Your task to perform on an android device: Open Maps and search for coffee Image 0: 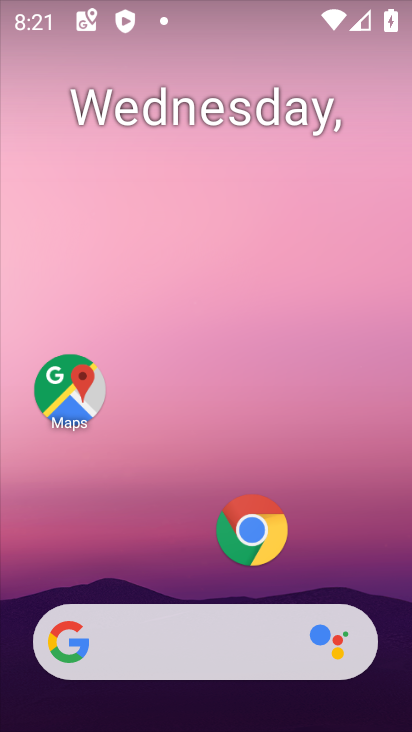
Step 0: click (58, 393)
Your task to perform on an android device: Open Maps and search for coffee Image 1: 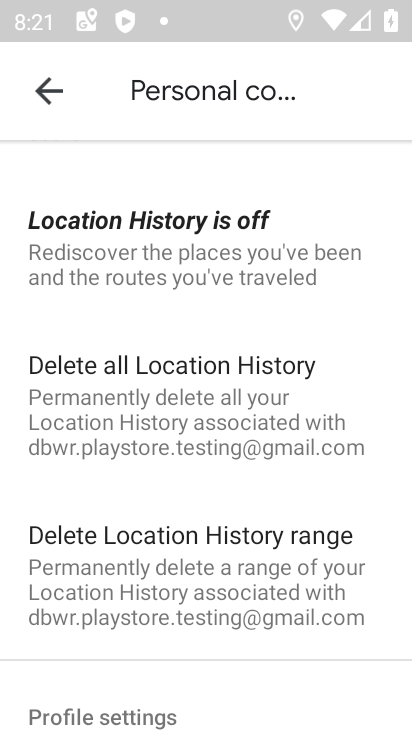
Step 1: click (54, 94)
Your task to perform on an android device: Open Maps and search for coffee Image 2: 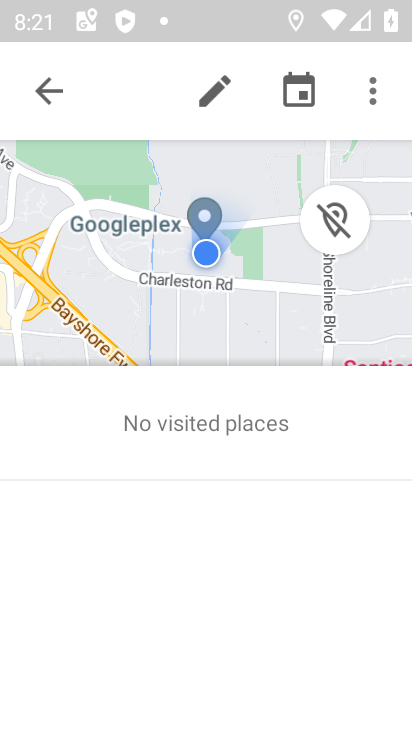
Step 2: click (64, 82)
Your task to perform on an android device: Open Maps and search for coffee Image 3: 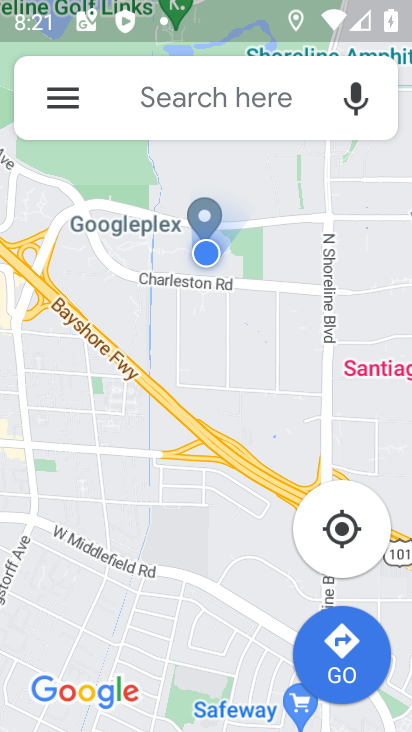
Step 3: click (184, 105)
Your task to perform on an android device: Open Maps and search for coffee Image 4: 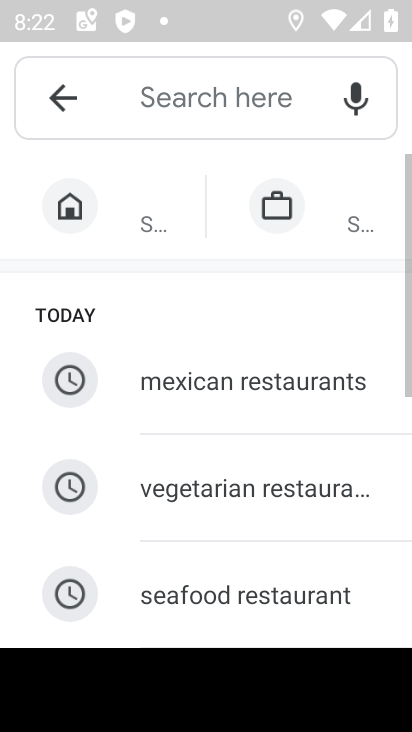
Step 4: drag from (182, 604) to (228, 282)
Your task to perform on an android device: Open Maps and search for coffee Image 5: 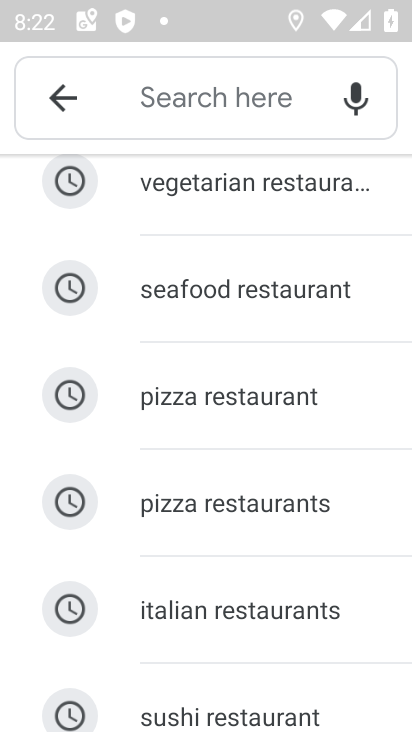
Step 5: click (154, 108)
Your task to perform on an android device: Open Maps and search for coffee Image 6: 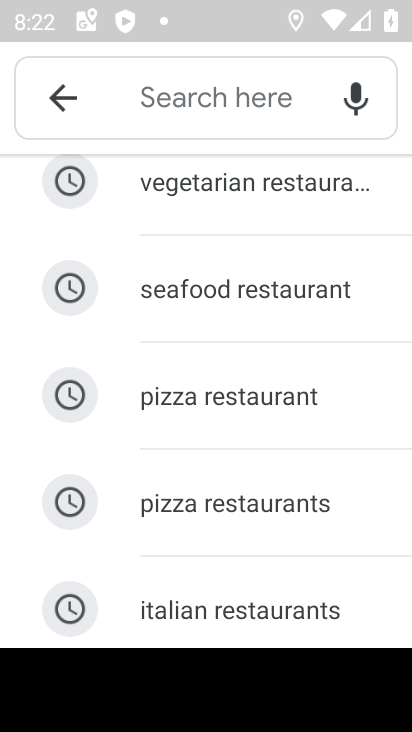
Step 6: type "coffee"
Your task to perform on an android device: Open Maps and search for coffee Image 7: 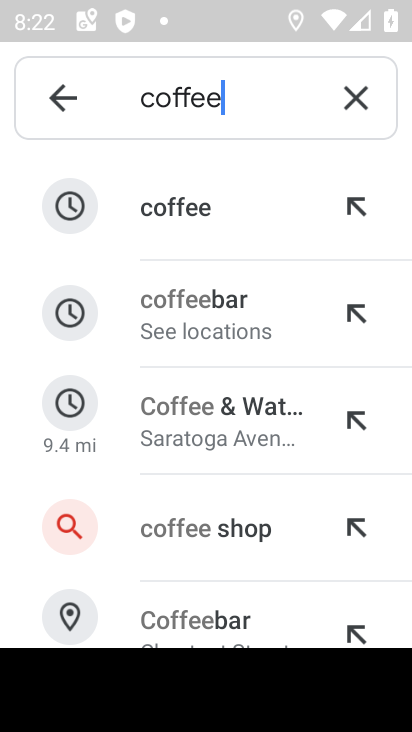
Step 7: click (179, 219)
Your task to perform on an android device: Open Maps and search for coffee Image 8: 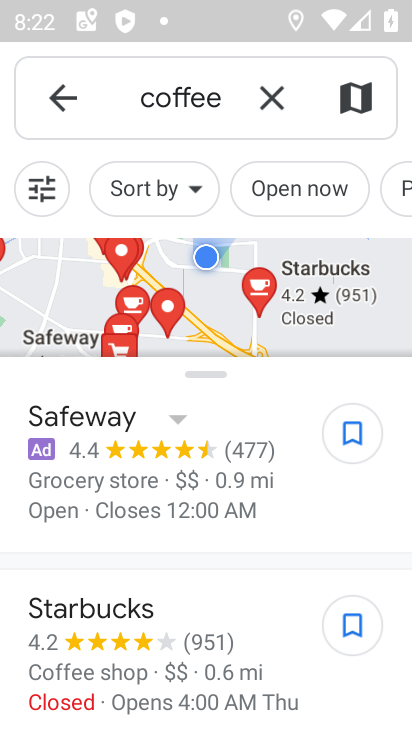
Step 8: task complete